Your task to perform on an android device: toggle airplane mode Image 0: 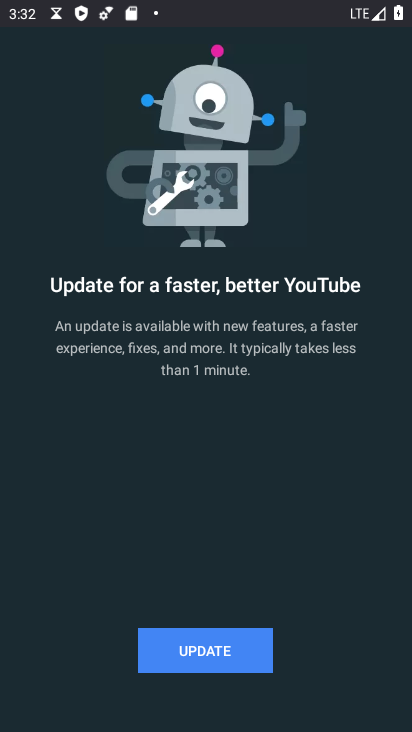
Step 0: press home button
Your task to perform on an android device: toggle airplane mode Image 1: 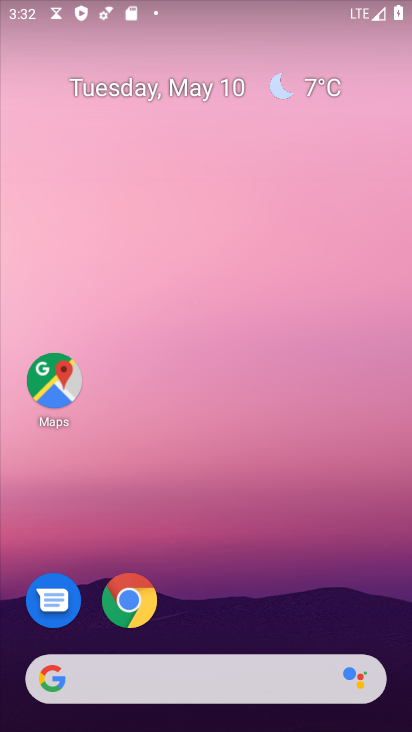
Step 1: task complete